Your task to perform on an android device: toggle priority inbox in the gmail app Image 0: 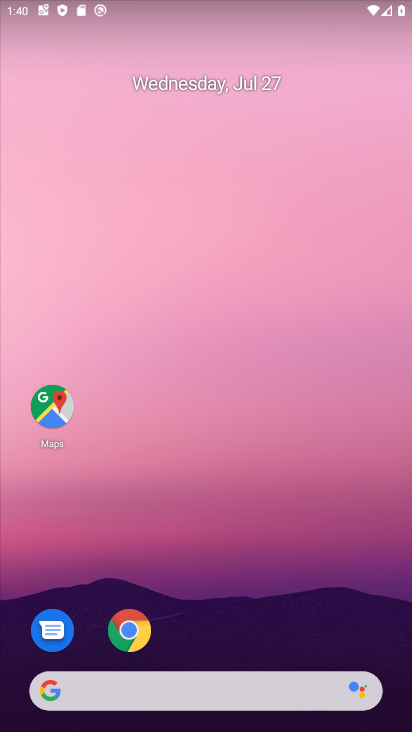
Step 0: drag from (340, 627) to (360, 79)
Your task to perform on an android device: toggle priority inbox in the gmail app Image 1: 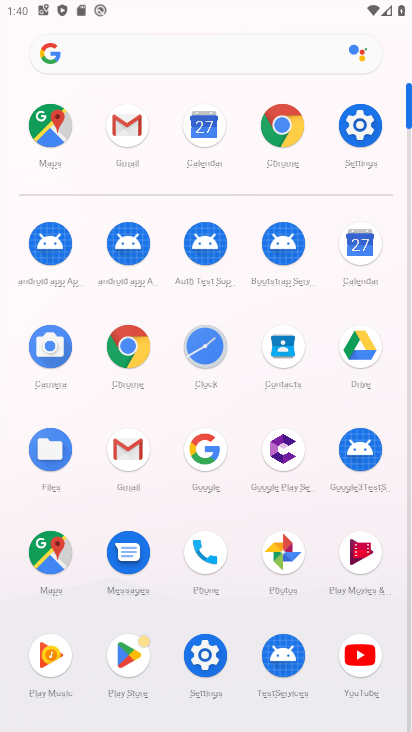
Step 1: click (126, 451)
Your task to perform on an android device: toggle priority inbox in the gmail app Image 2: 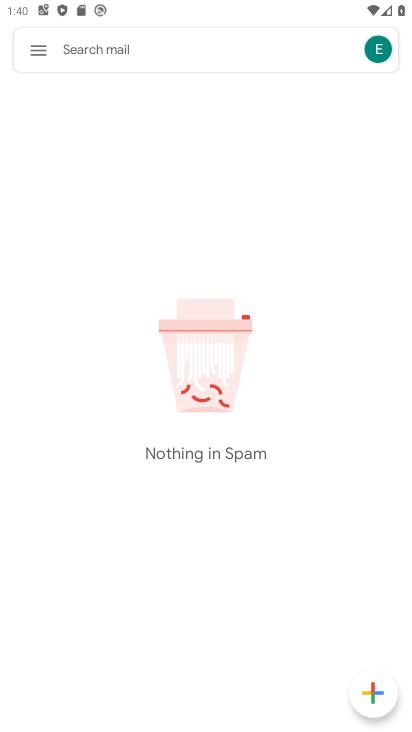
Step 2: click (40, 52)
Your task to perform on an android device: toggle priority inbox in the gmail app Image 3: 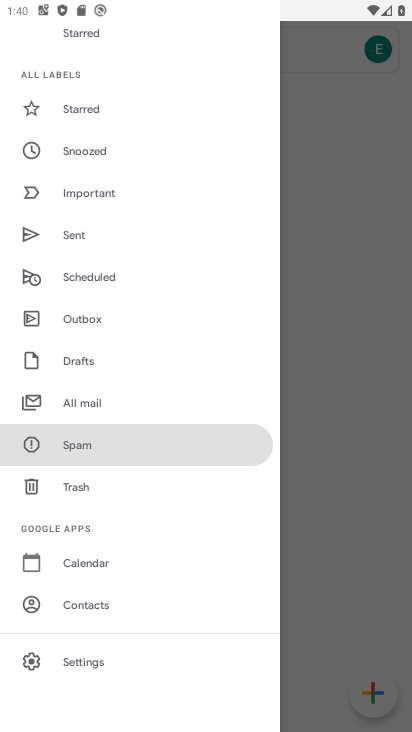
Step 3: click (85, 654)
Your task to perform on an android device: toggle priority inbox in the gmail app Image 4: 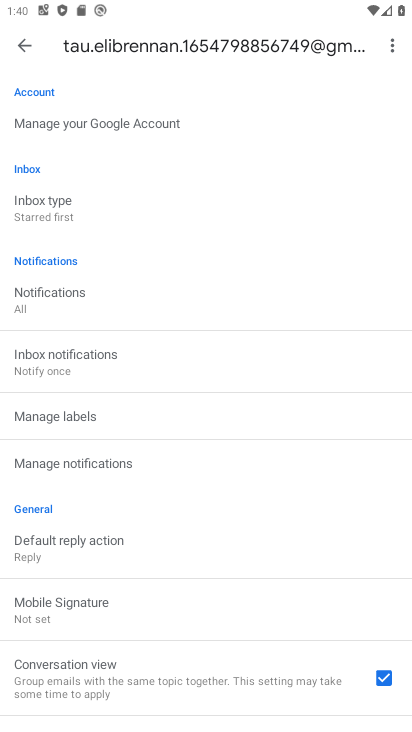
Step 4: click (44, 208)
Your task to perform on an android device: toggle priority inbox in the gmail app Image 5: 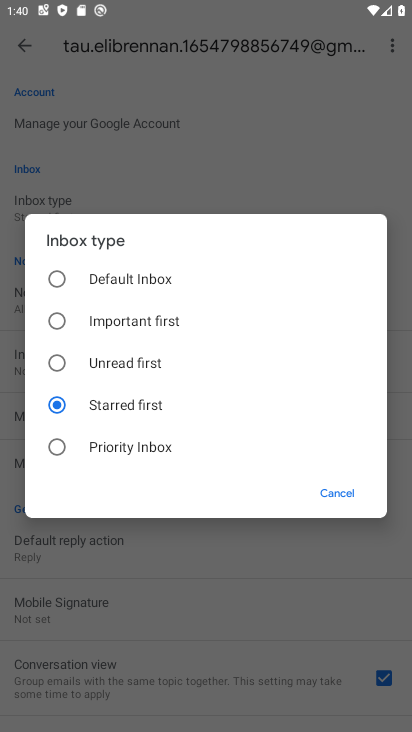
Step 5: click (56, 450)
Your task to perform on an android device: toggle priority inbox in the gmail app Image 6: 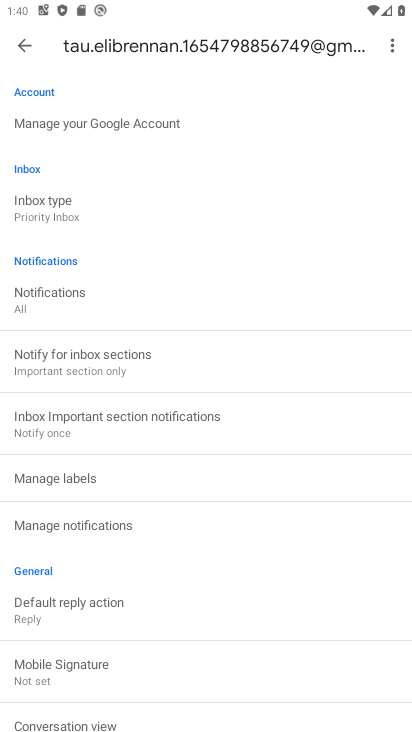
Step 6: task complete